Your task to perform on an android device: remove spam from my inbox in the gmail app Image 0: 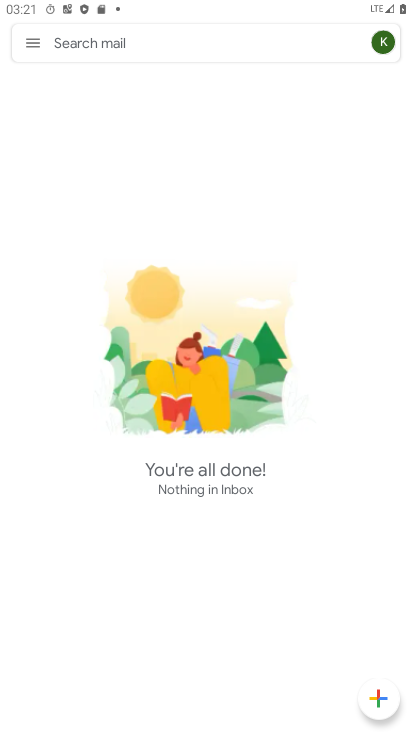
Step 0: press home button
Your task to perform on an android device: remove spam from my inbox in the gmail app Image 1: 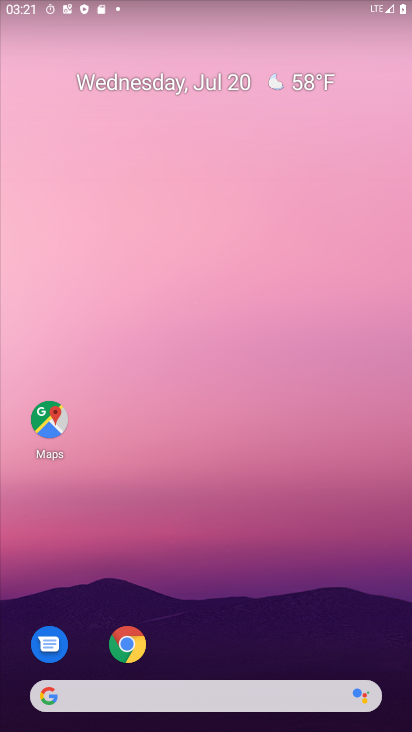
Step 1: drag from (32, 666) to (144, 182)
Your task to perform on an android device: remove spam from my inbox in the gmail app Image 2: 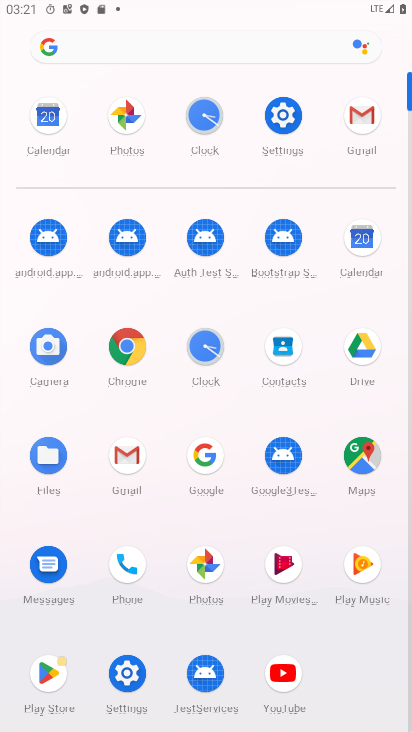
Step 2: click (136, 469)
Your task to perform on an android device: remove spam from my inbox in the gmail app Image 3: 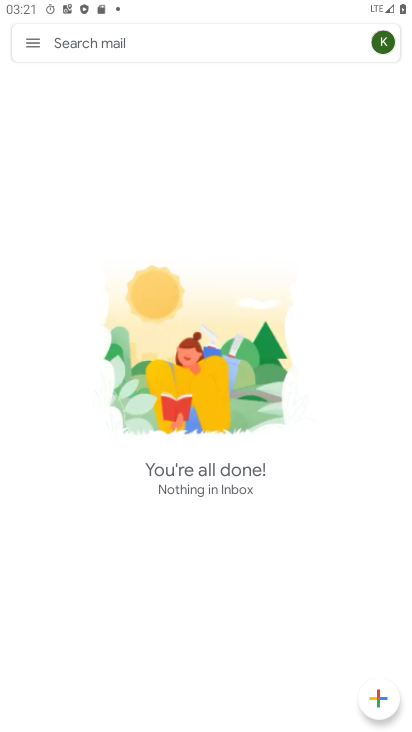
Step 3: click (32, 42)
Your task to perform on an android device: remove spam from my inbox in the gmail app Image 4: 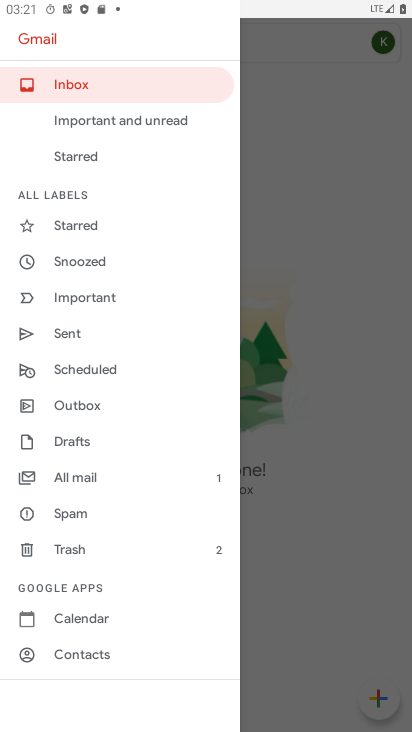
Step 4: click (93, 505)
Your task to perform on an android device: remove spam from my inbox in the gmail app Image 5: 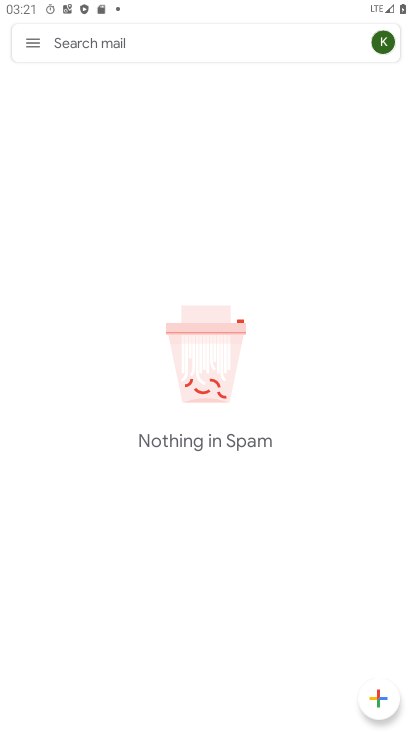
Step 5: task complete